Your task to perform on an android device: Open my contact list Image 0: 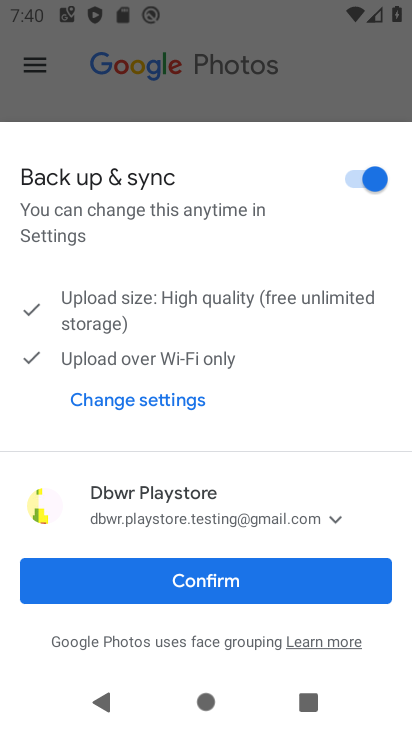
Step 0: press home button
Your task to perform on an android device: Open my contact list Image 1: 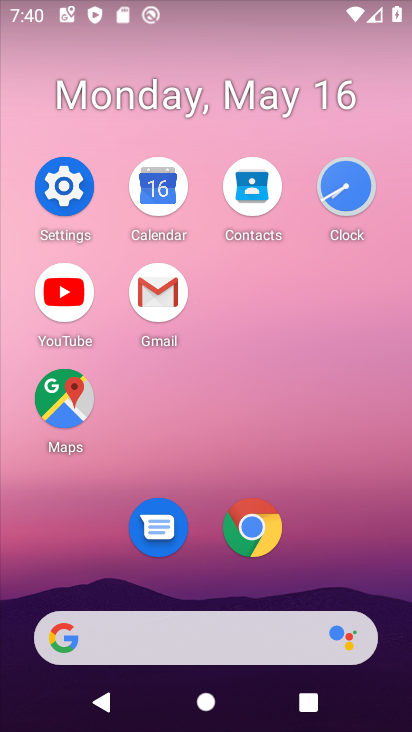
Step 1: click (260, 177)
Your task to perform on an android device: Open my contact list Image 2: 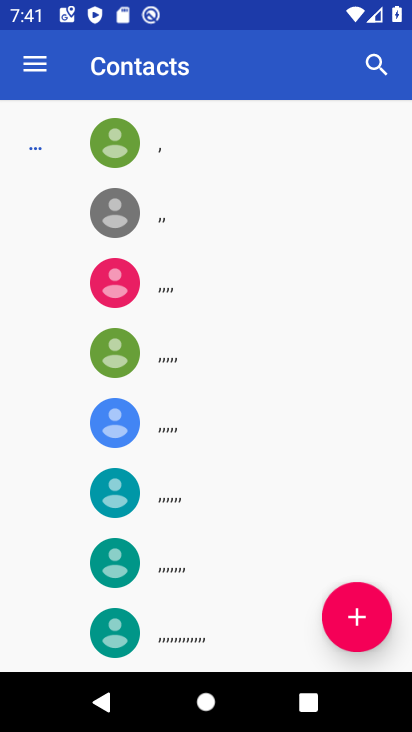
Step 2: task complete